Your task to perform on an android device: What's on my calendar tomorrow? Image 0: 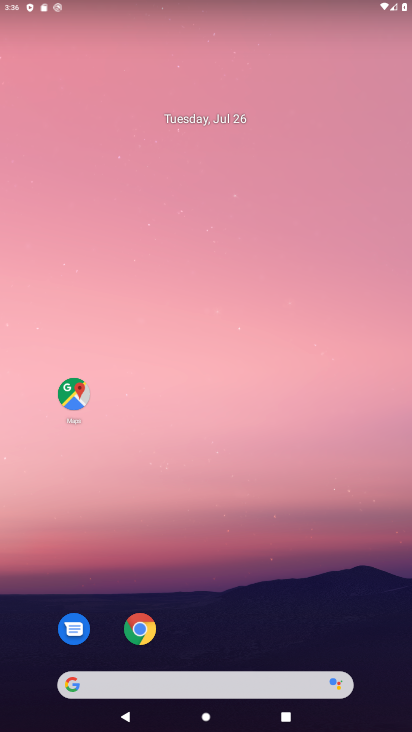
Step 0: drag from (344, 607) to (275, 72)
Your task to perform on an android device: What's on my calendar tomorrow? Image 1: 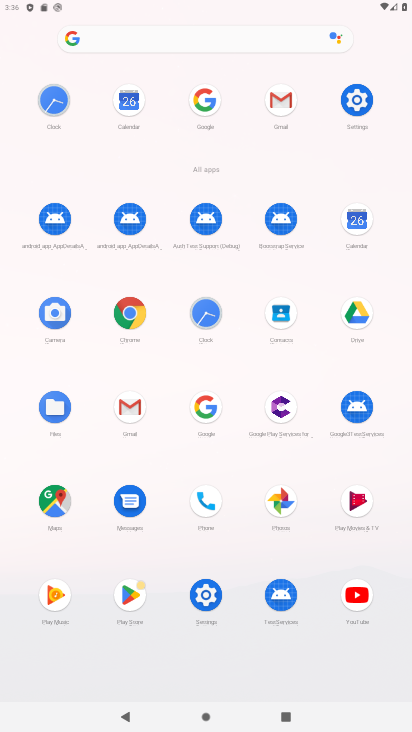
Step 1: click (356, 221)
Your task to perform on an android device: What's on my calendar tomorrow? Image 2: 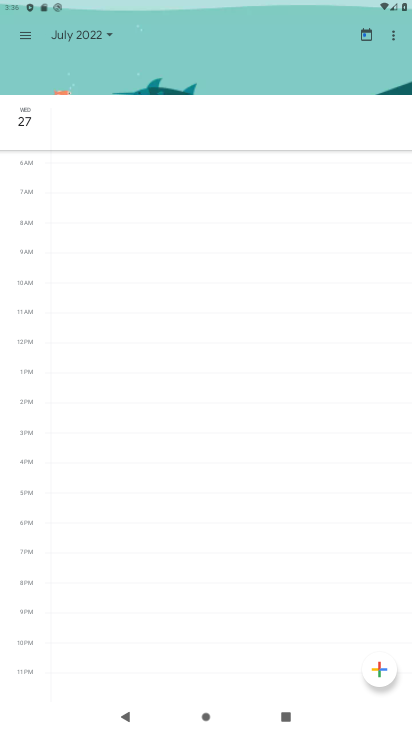
Step 2: task complete